Your task to perform on an android device: Show me popular games on the Play Store Image 0: 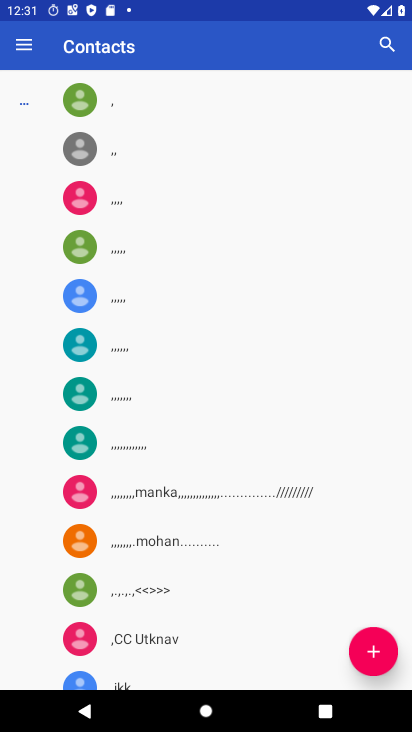
Step 0: press home button
Your task to perform on an android device: Show me popular games on the Play Store Image 1: 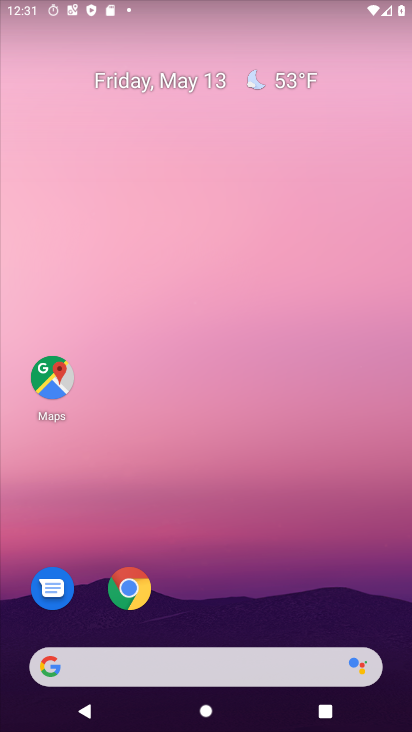
Step 1: drag from (295, 576) to (123, 133)
Your task to perform on an android device: Show me popular games on the Play Store Image 2: 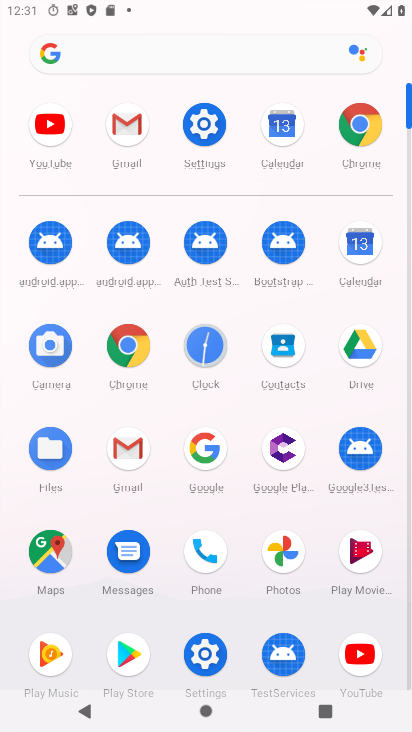
Step 2: click (130, 666)
Your task to perform on an android device: Show me popular games on the Play Store Image 3: 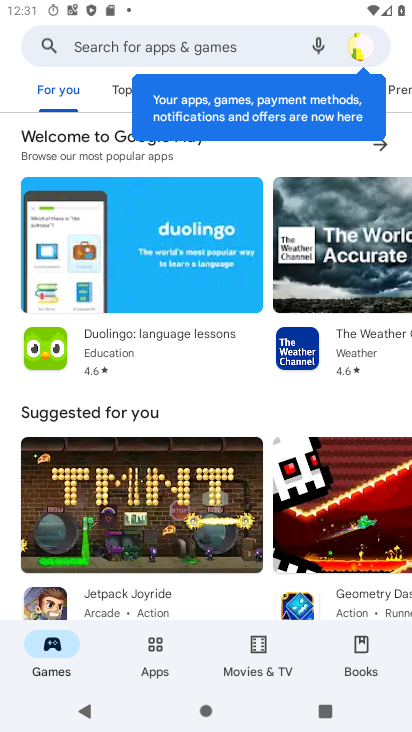
Step 3: task complete